Your task to perform on an android device: Do I have any events tomorrow? Image 0: 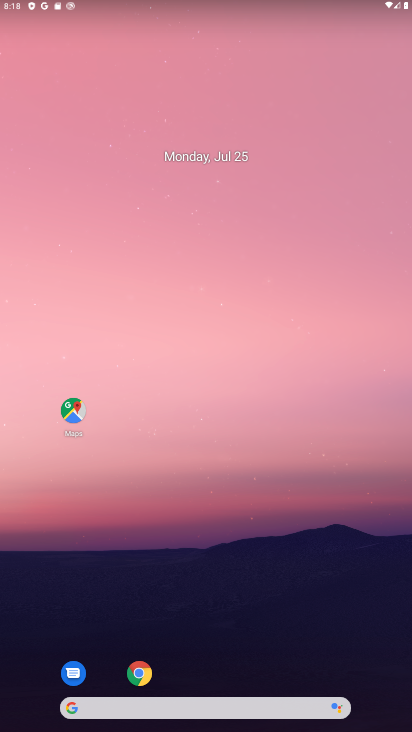
Step 0: drag from (241, 673) to (242, 161)
Your task to perform on an android device: Do I have any events tomorrow? Image 1: 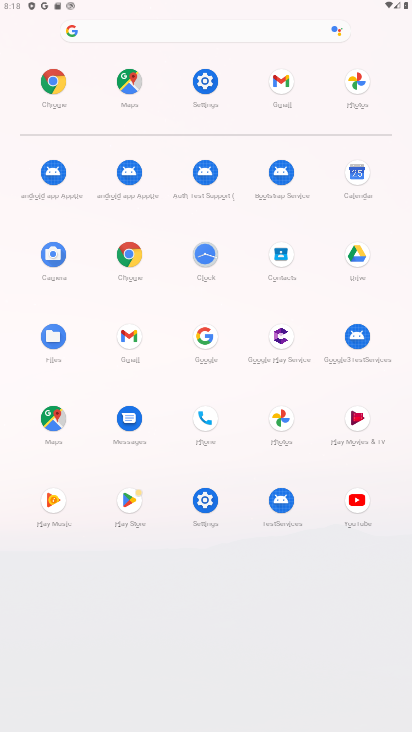
Step 1: click (352, 182)
Your task to perform on an android device: Do I have any events tomorrow? Image 2: 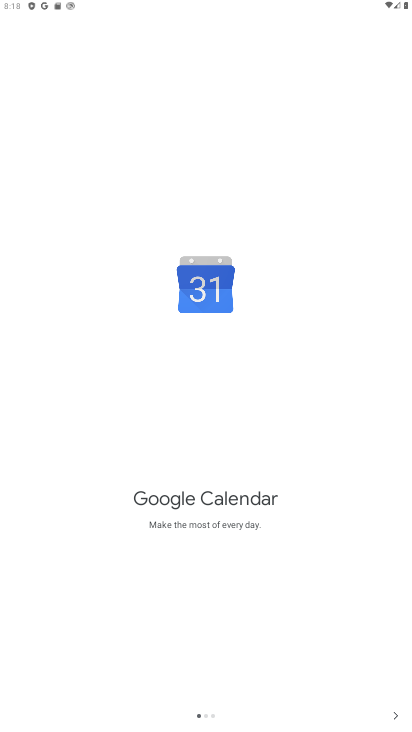
Step 2: click (402, 718)
Your task to perform on an android device: Do I have any events tomorrow? Image 3: 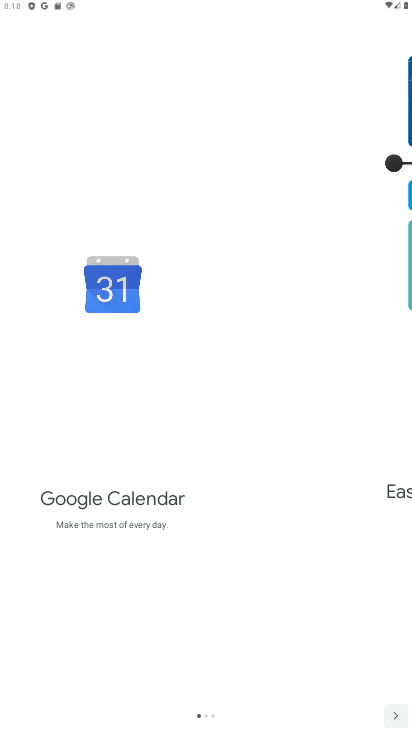
Step 3: click (402, 718)
Your task to perform on an android device: Do I have any events tomorrow? Image 4: 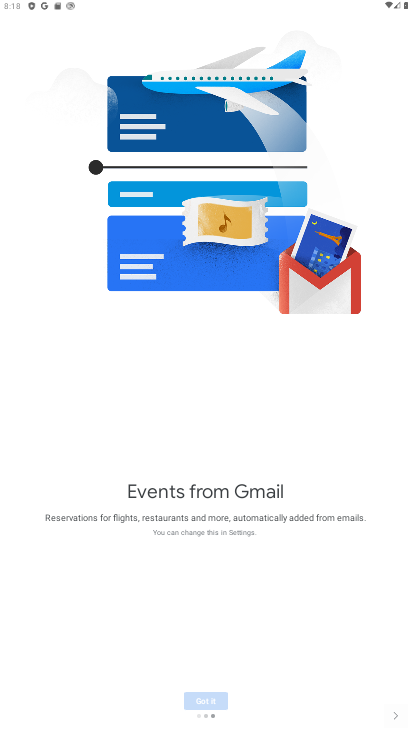
Step 4: click (402, 718)
Your task to perform on an android device: Do I have any events tomorrow? Image 5: 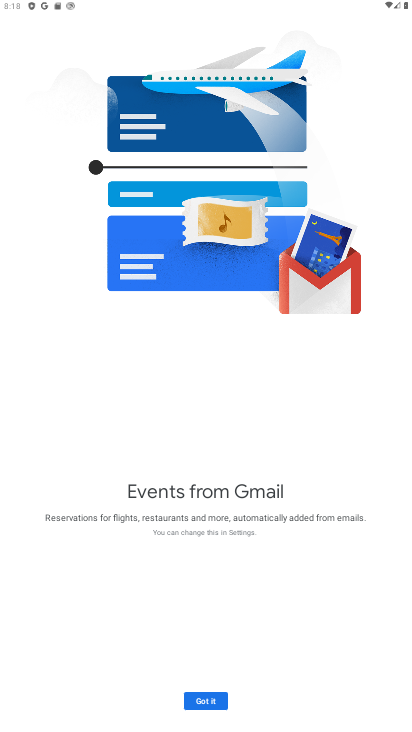
Step 5: click (402, 718)
Your task to perform on an android device: Do I have any events tomorrow? Image 6: 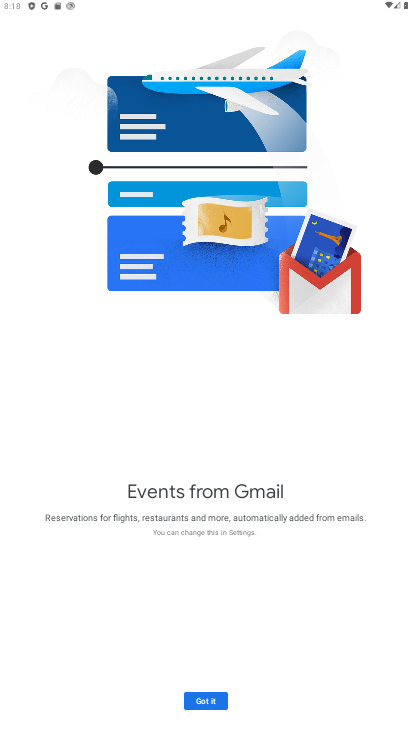
Step 6: click (212, 707)
Your task to perform on an android device: Do I have any events tomorrow? Image 7: 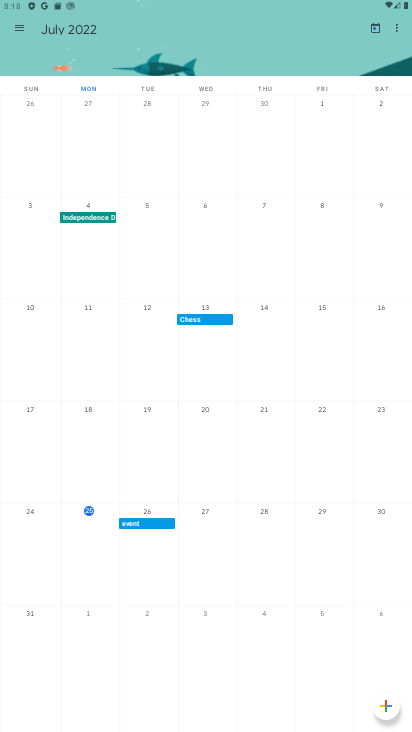
Step 7: task complete